Your task to perform on an android device: turn on the 24-hour format for clock Image 0: 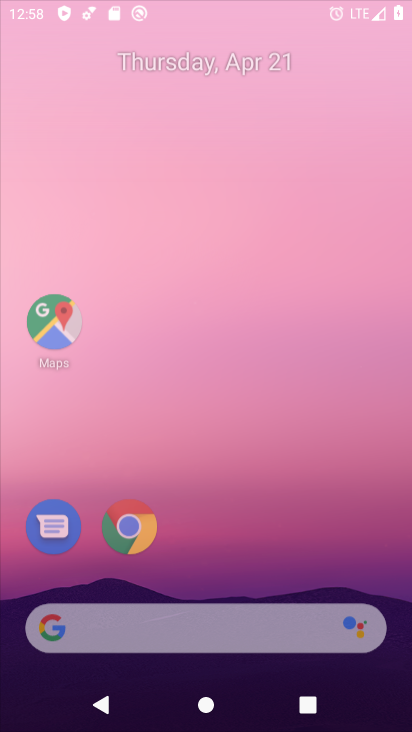
Step 0: drag from (199, 362) to (199, 111)
Your task to perform on an android device: turn on the 24-hour format for clock Image 1: 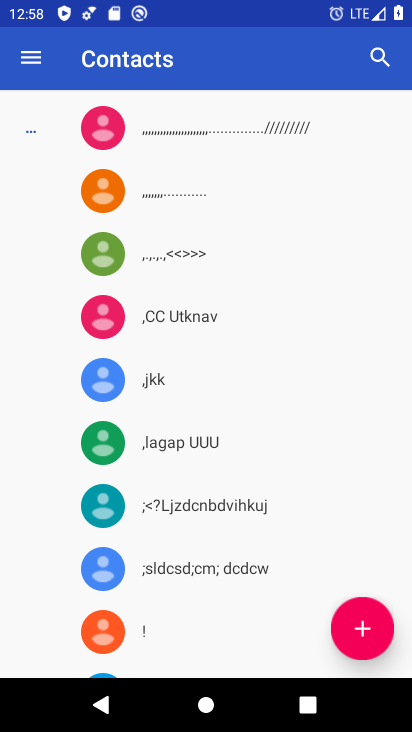
Step 1: press home button
Your task to perform on an android device: turn on the 24-hour format for clock Image 2: 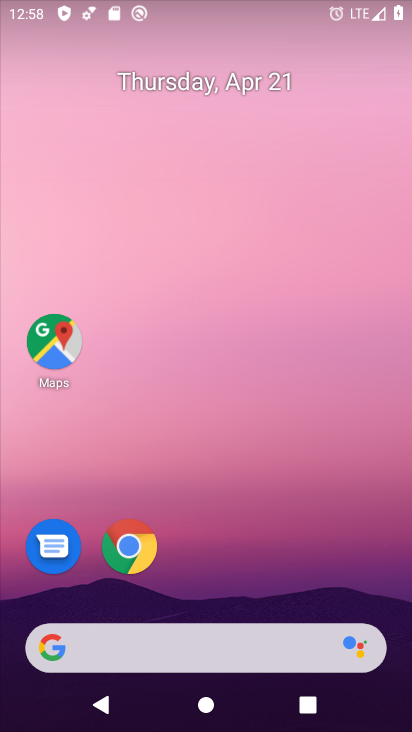
Step 2: drag from (282, 529) to (206, 163)
Your task to perform on an android device: turn on the 24-hour format for clock Image 3: 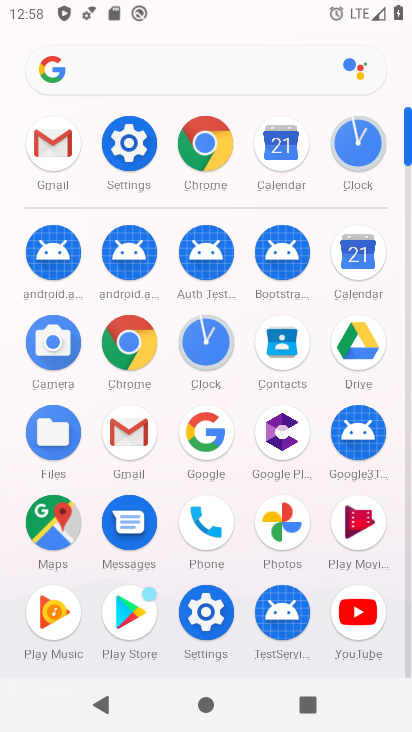
Step 3: click (140, 142)
Your task to perform on an android device: turn on the 24-hour format for clock Image 4: 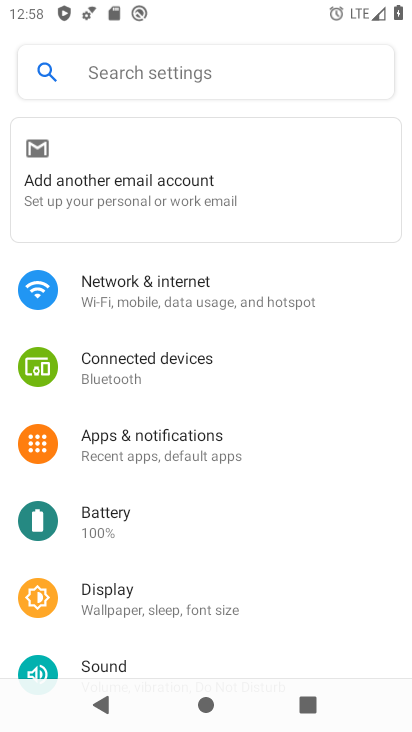
Step 4: press home button
Your task to perform on an android device: turn on the 24-hour format for clock Image 5: 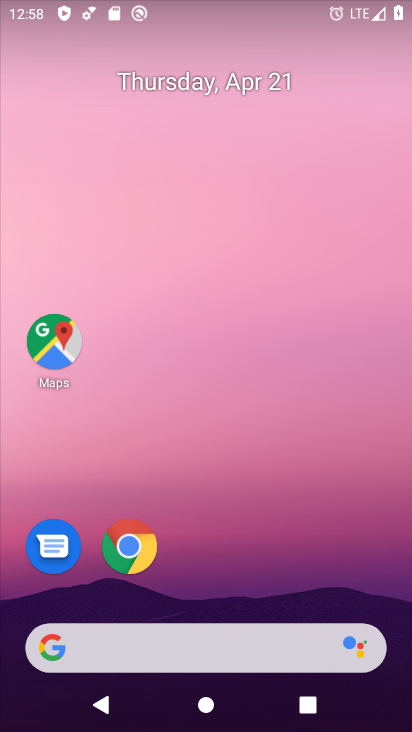
Step 5: drag from (247, 494) to (247, 234)
Your task to perform on an android device: turn on the 24-hour format for clock Image 6: 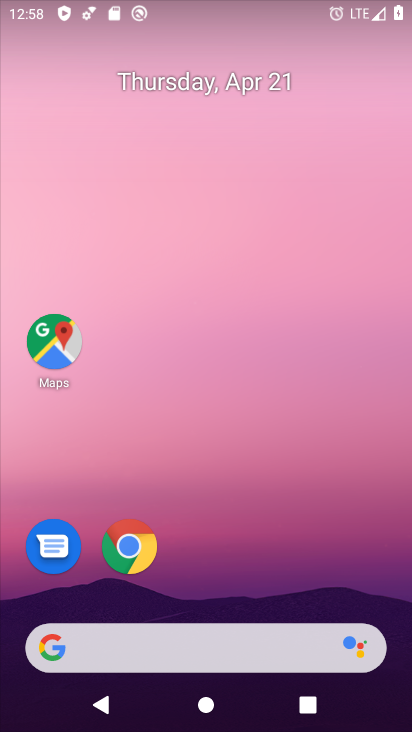
Step 6: drag from (232, 436) to (225, 215)
Your task to perform on an android device: turn on the 24-hour format for clock Image 7: 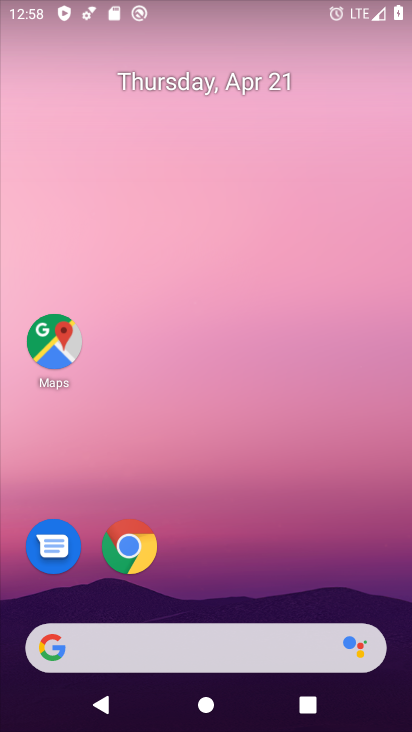
Step 7: drag from (262, 548) to (226, 119)
Your task to perform on an android device: turn on the 24-hour format for clock Image 8: 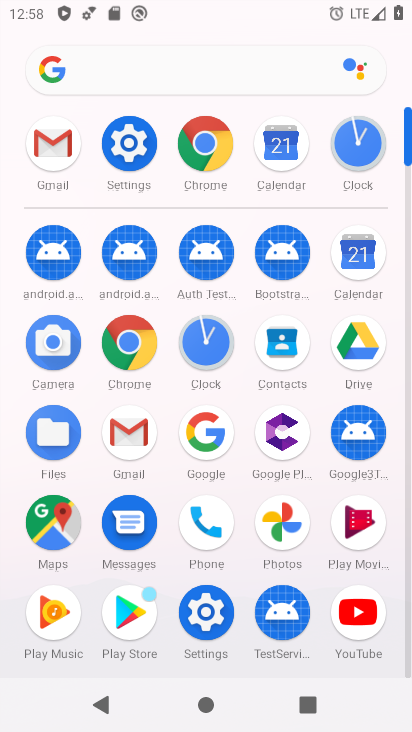
Step 8: click (201, 363)
Your task to perform on an android device: turn on the 24-hour format for clock Image 9: 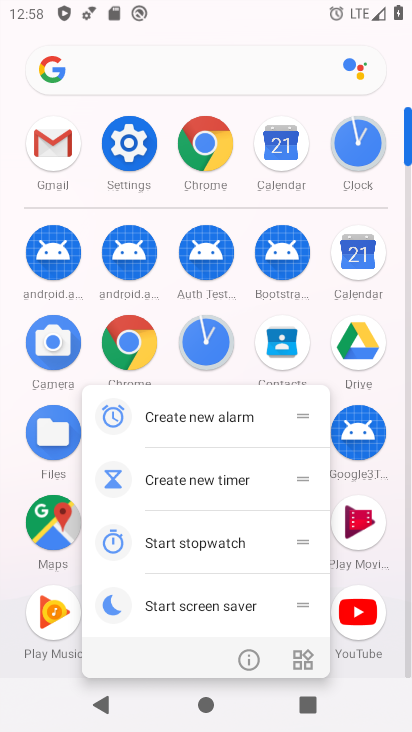
Step 9: click (204, 338)
Your task to perform on an android device: turn on the 24-hour format for clock Image 10: 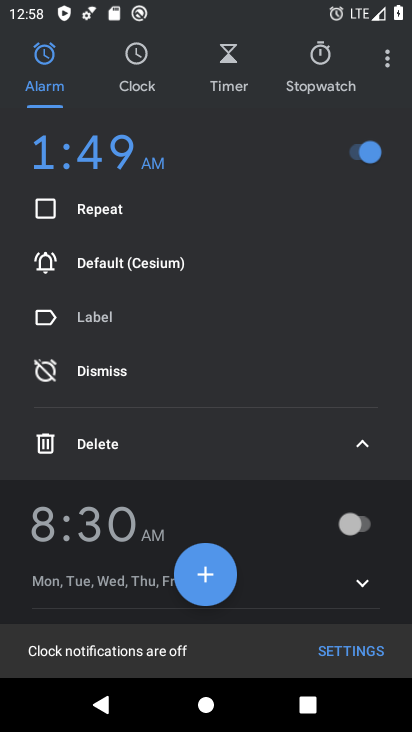
Step 10: click (380, 70)
Your task to perform on an android device: turn on the 24-hour format for clock Image 11: 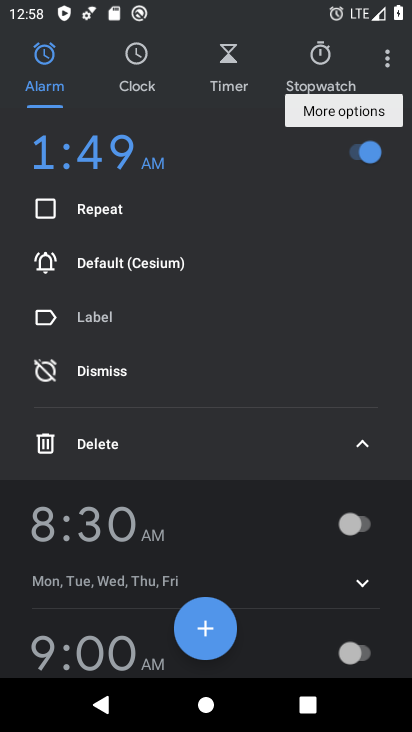
Step 11: click (389, 67)
Your task to perform on an android device: turn on the 24-hour format for clock Image 12: 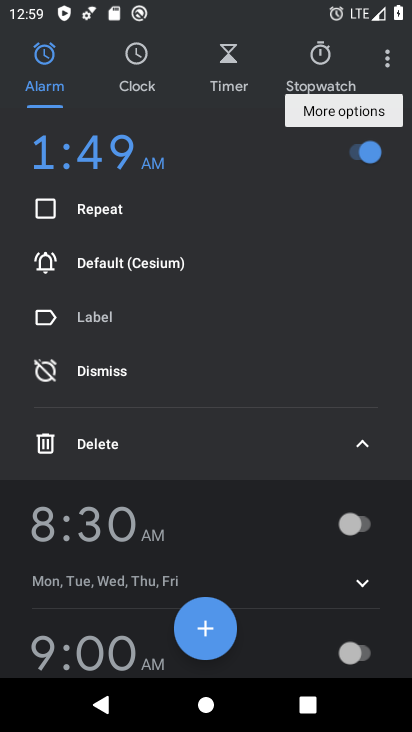
Step 12: click (377, 57)
Your task to perform on an android device: turn on the 24-hour format for clock Image 13: 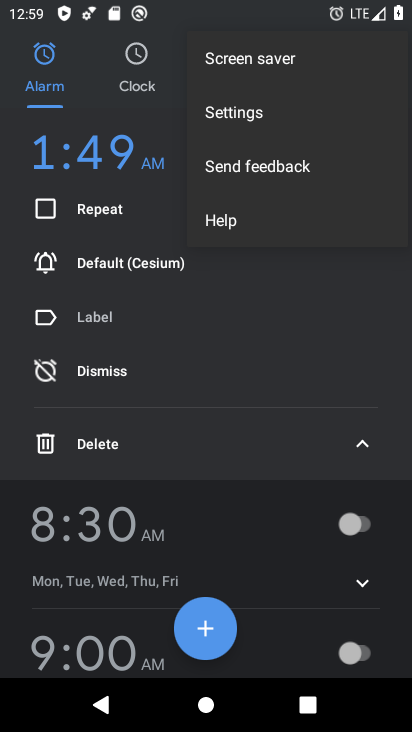
Step 13: click (225, 112)
Your task to perform on an android device: turn on the 24-hour format for clock Image 14: 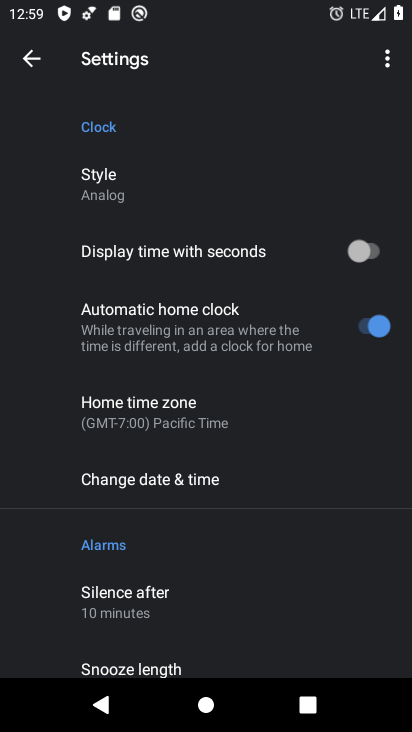
Step 14: click (211, 465)
Your task to perform on an android device: turn on the 24-hour format for clock Image 15: 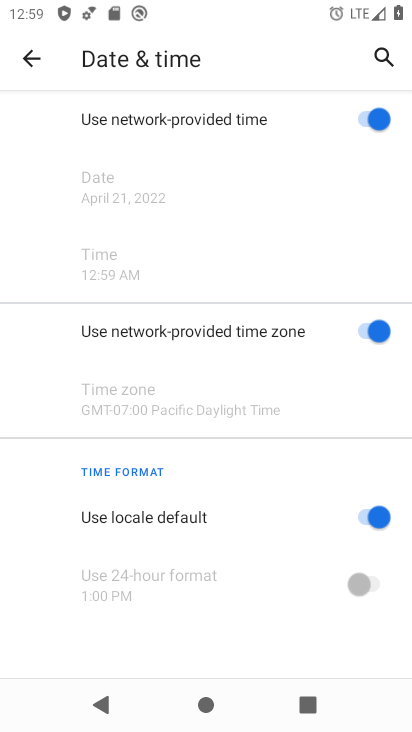
Step 15: drag from (164, 598) to (154, 366)
Your task to perform on an android device: turn on the 24-hour format for clock Image 16: 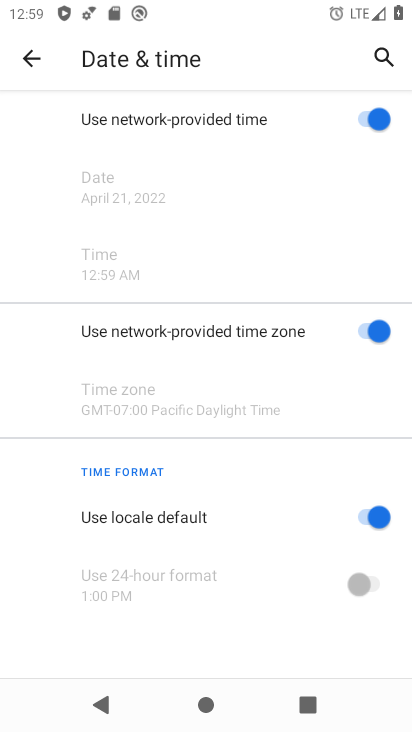
Step 16: click (371, 520)
Your task to perform on an android device: turn on the 24-hour format for clock Image 17: 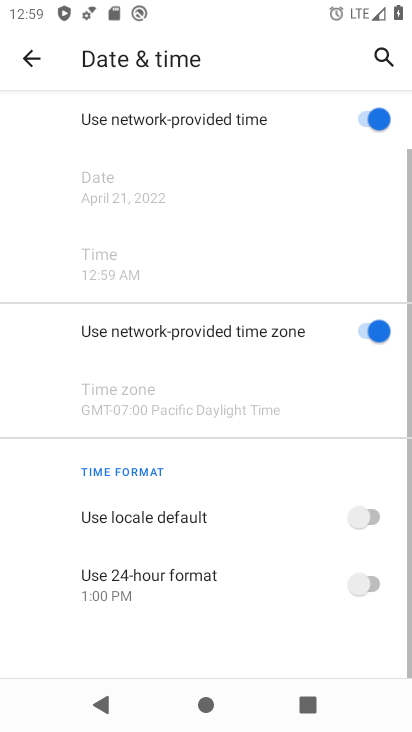
Step 17: click (364, 583)
Your task to perform on an android device: turn on the 24-hour format for clock Image 18: 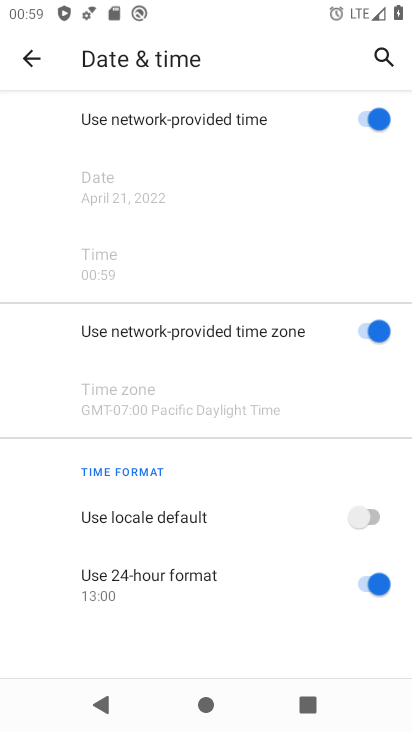
Step 18: task complete